Your task to perform on an android device: Go to Google maps Image 0: 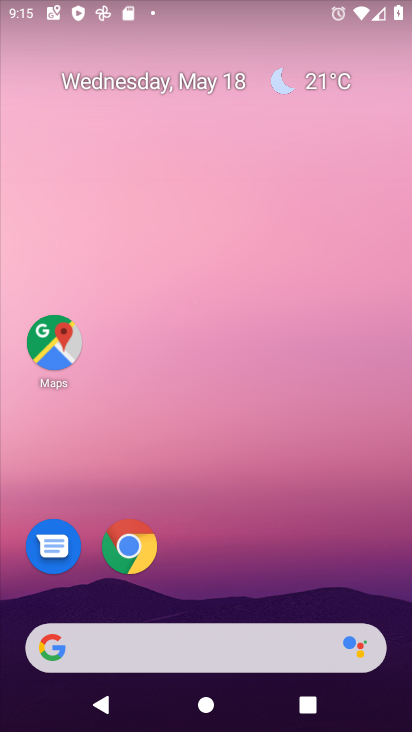
Step 0: drag from (403, 621) to (340, 146)
Your task to perform on an android device: Go to Google maps Image 1: 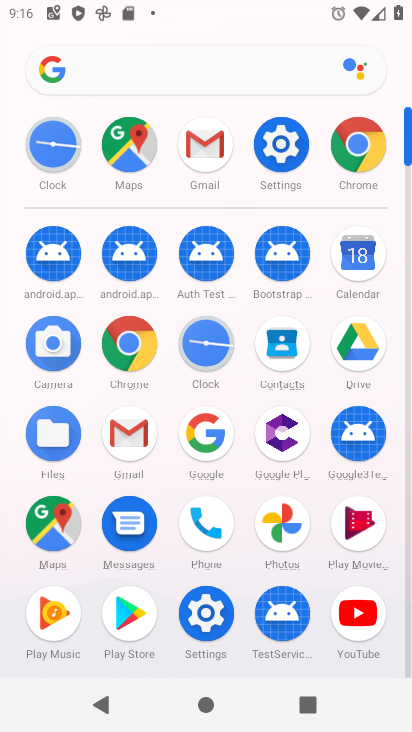
Step 1: click (66, 539)
Your task to perform on an android device: Go to Google maps Image 2: 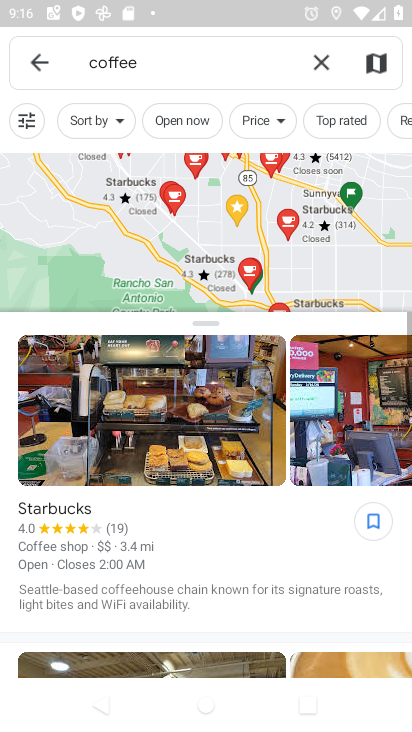
Step 2: click (317, 62)
Your task to perform on an android device: Go to Google maps Image 3: 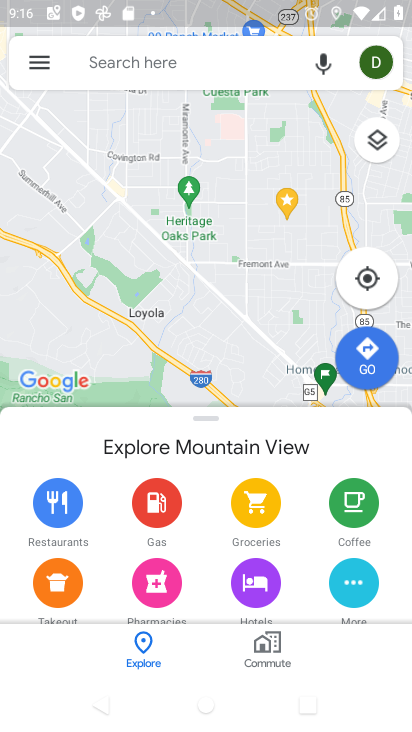
Step 3: task complete